Your task to perform on an android device: What is the news today? Image 0: 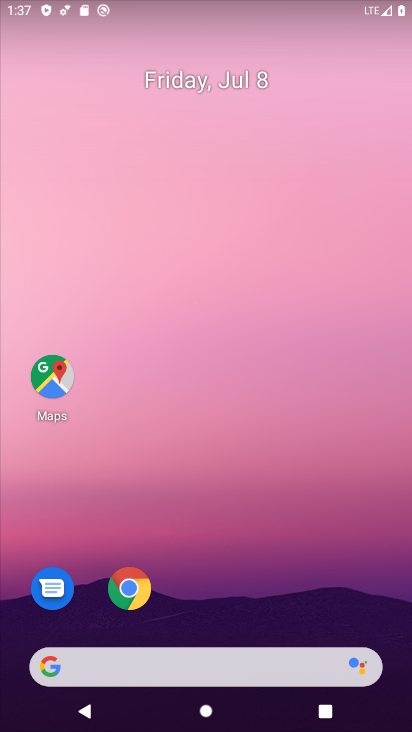
Step 0: press home button
Your task to perform on an android device: What is the news today? Image 1: 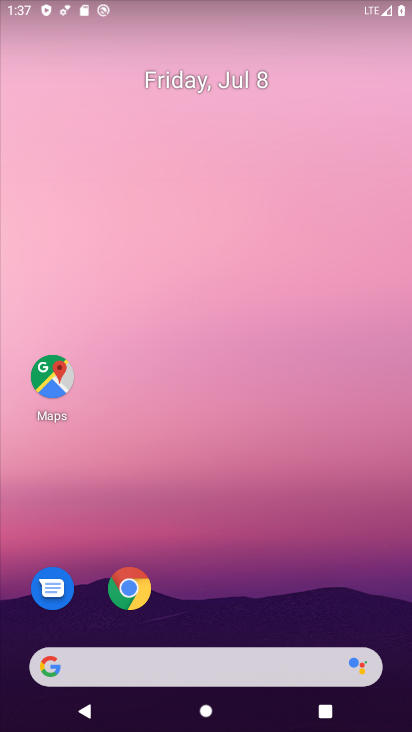
Step 1: type "news today?"
Your task to perform on an android device: What is the news today? Image 2: 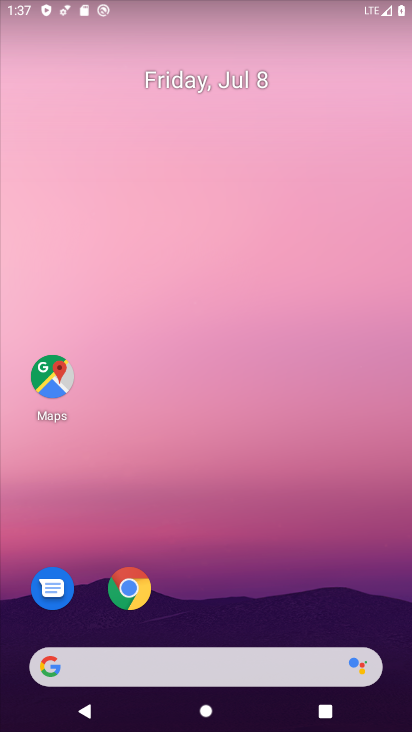
Step 2: click (169, 653)
Your task to perform on an android device: What is the news today? Image 3: 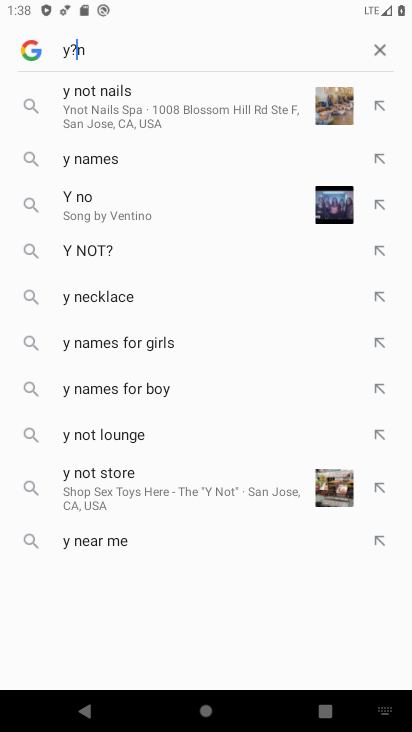
Step 3: click (377, 47)
Your task to perform on an android device: What is the news today? Image 4: 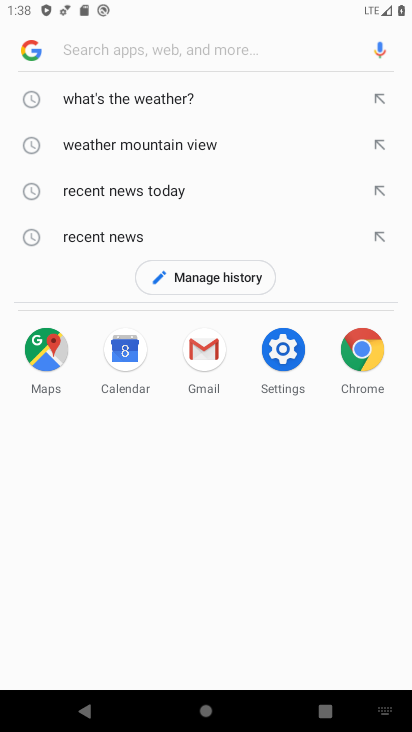
Step 4: type "What is the news today?"
Your task to perform on an android device: What is the news today? Image 5: 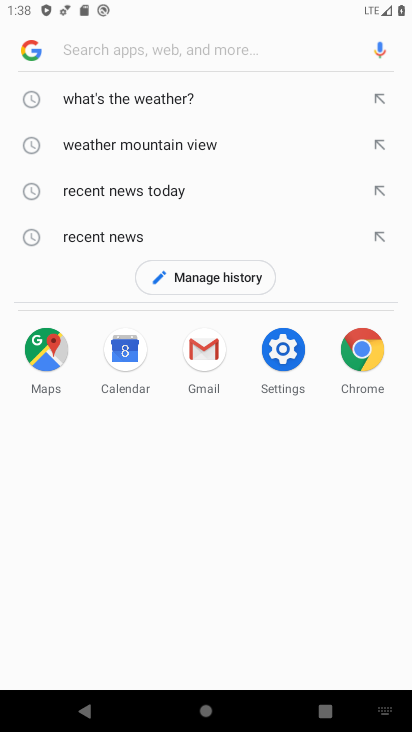
Step 5: click (119, 43)
Your task to perform on an android device: What is the news today? Image 6: 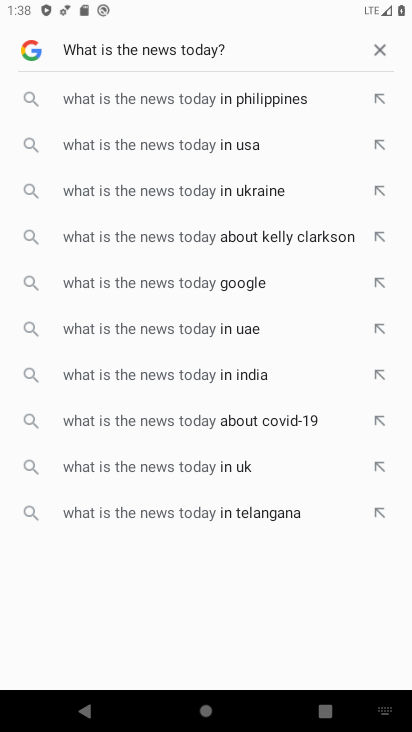
Step 6: click (72, 29)
Your task to perform on an android device: What is the news today? Image 7: 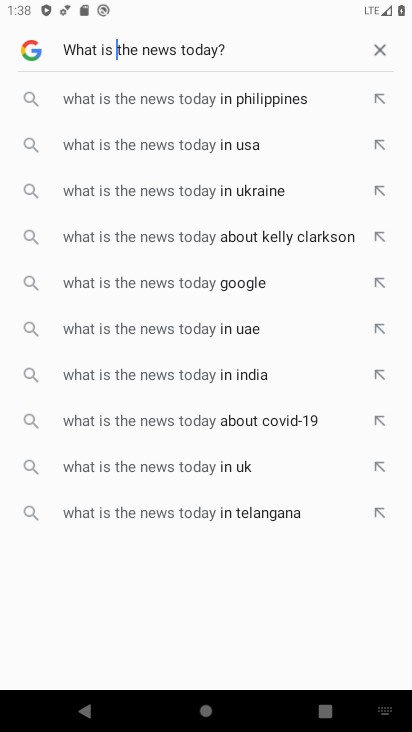
Step 7: click (214, 284)
Your task to perform on an android device: What is the news today? Image 8: 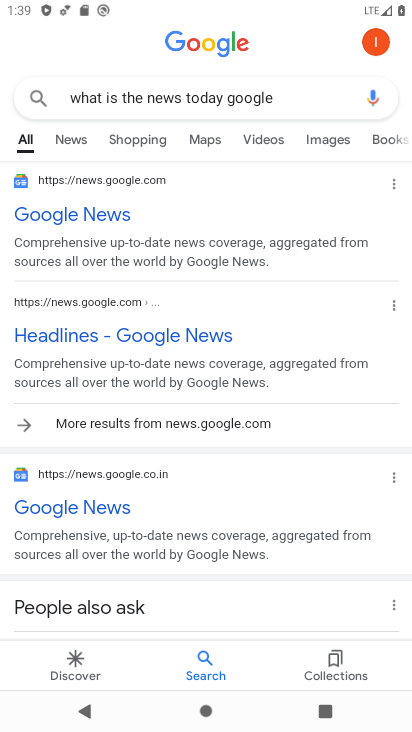
Step 8: task complete